Your task to perform on an android device: toggle improve location accuracy Image 0: 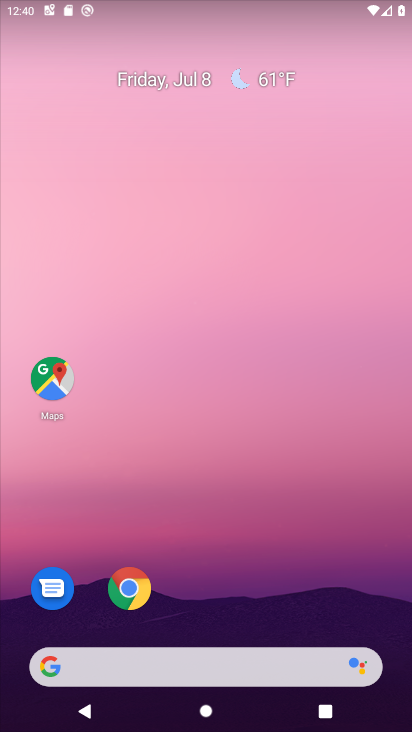
Step 0: press home button
Your task to perform on an android device: toggle improve location accuracy Image 1: 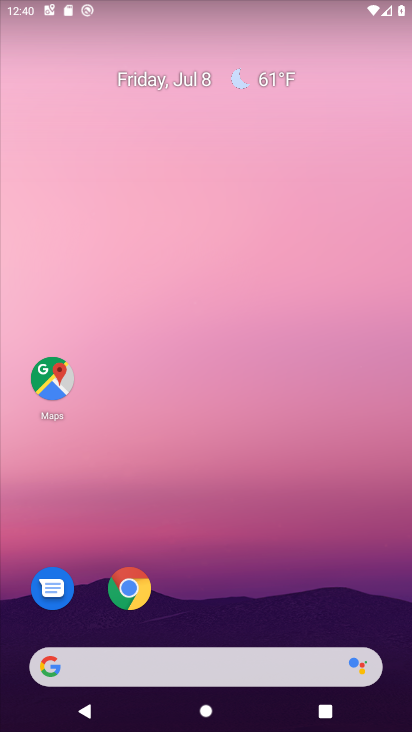
Step 1: drag from (295, 547) to (304, 46)
Your task to perform on an android device: toggle improve location accuracy Image 2: 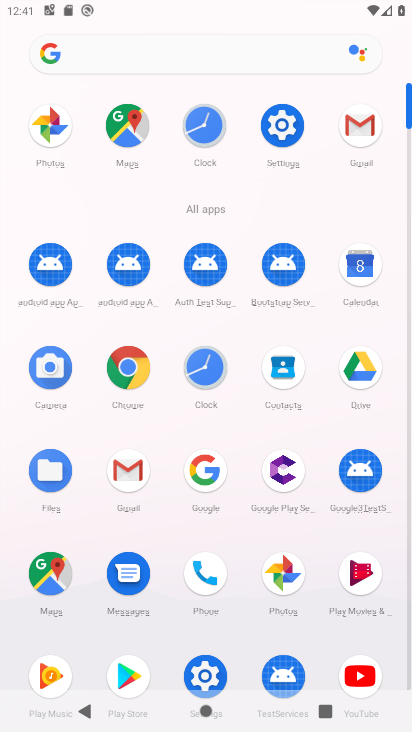
Step 2: click (271, 114)
Your task to perform on an android device: toggle improve location accuracy Image 3: 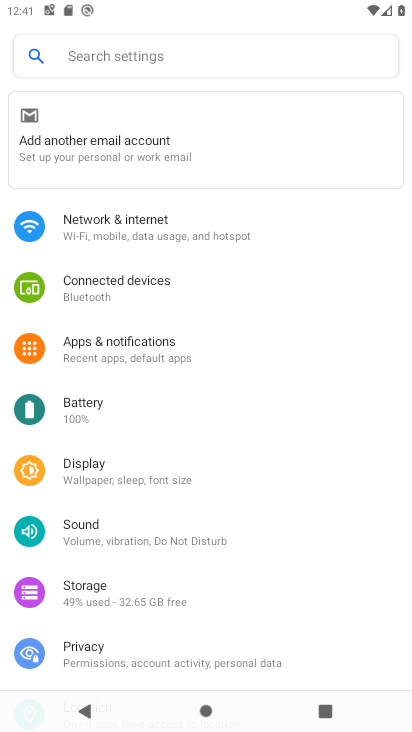
Step 3: drag from (303, 622) to (265, 218)
Your task to perform on an android device: toggle improve location accuracy Image 4: 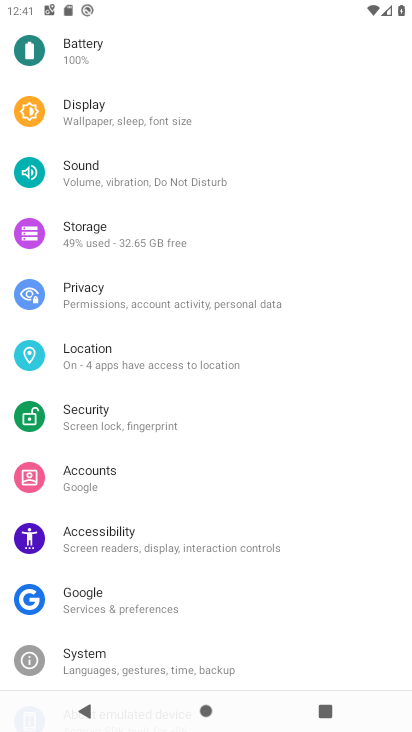
Step 4: click (128, 361)
Your task to perform on an android device: toggle improve location accuracy Image 5: 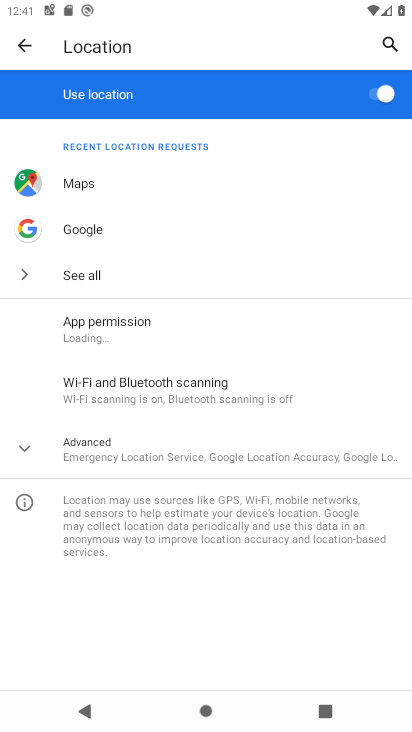
Step 5: click (22, 447)
Your task to perform on an android device: toggle improve location accuracy Image 6: 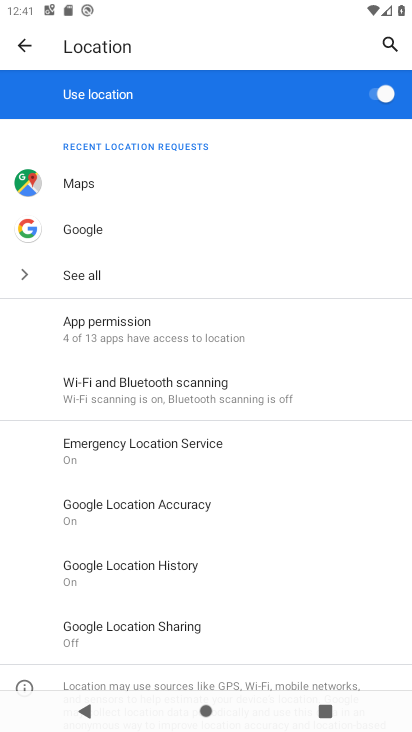
Step 6: click (165, 497)
Your task to perform on an android device: toggle improve location accuracy Image 7: 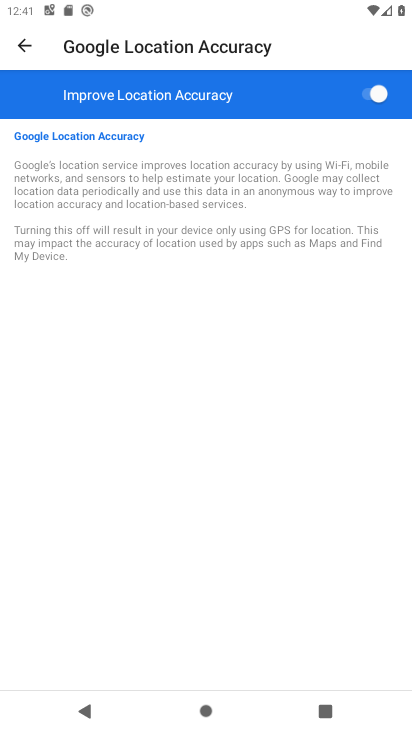
Step 7: click (383, 94)
Your task to perform on an android device: toggle improve location accuracy Image 8: 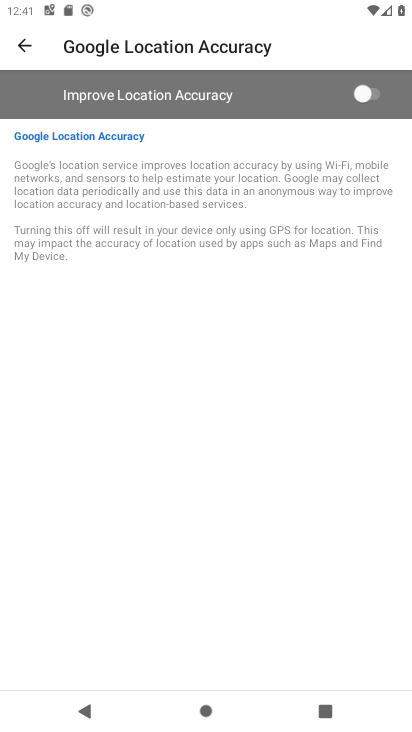
Step 8: task complete